Your task to perform on an android device: uninstall "PUBG MOBILE" Image 0: 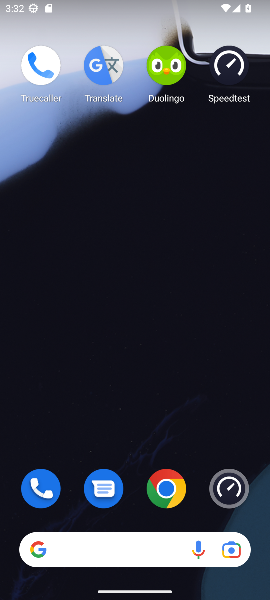
Step 0: drag from (121, 511) to (103, 79)
Your task to perform on an android device: uninstall "PUBG MOBILE" Image 1: 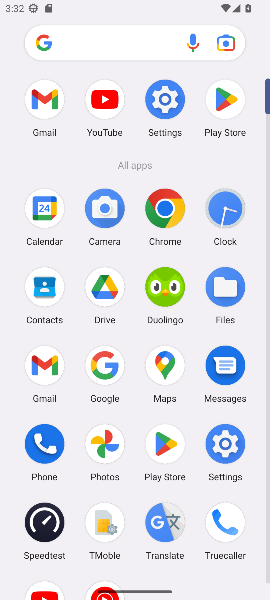
Step 1: click (223, 98)
Your task to perform on an android device: uninstall "PUBG MOBILE" Image 2: 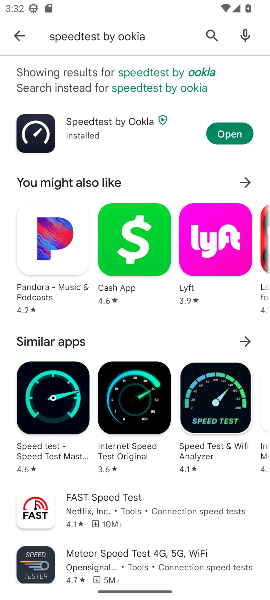
Step 2: click (213, 29)
Your task to perform on an android device: uninstall "PUBG MOBILE" Image 3: 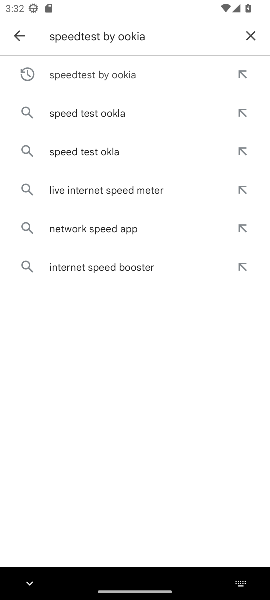
Step 3: click (257, 33)
Your task to perform on an android device: uninstall "PUBG MOBILE" Image 4: 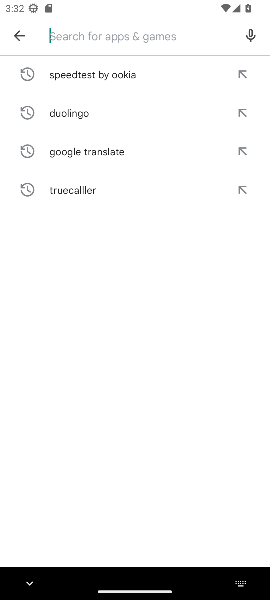
Step 4: type "pubg mobila"
Your task to perform on an android device: uninstall "PUBG MOBILE" Image 5: 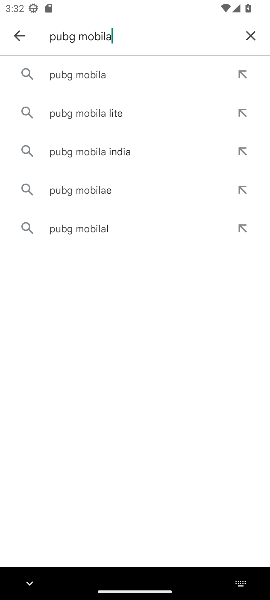
Step 5: click (113, 75)
Your task to perform on an android device: uninstall "PUBG MOBILE" Image 6: 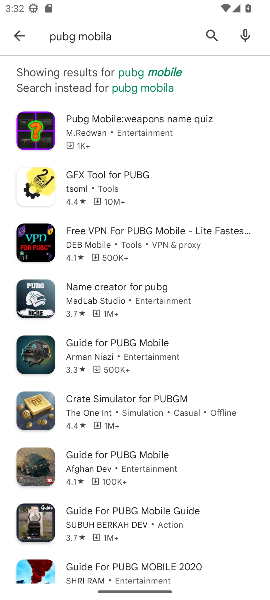
Step 6: task complete